Your task to perform on an android device: Go to Wikipedia Image 0: 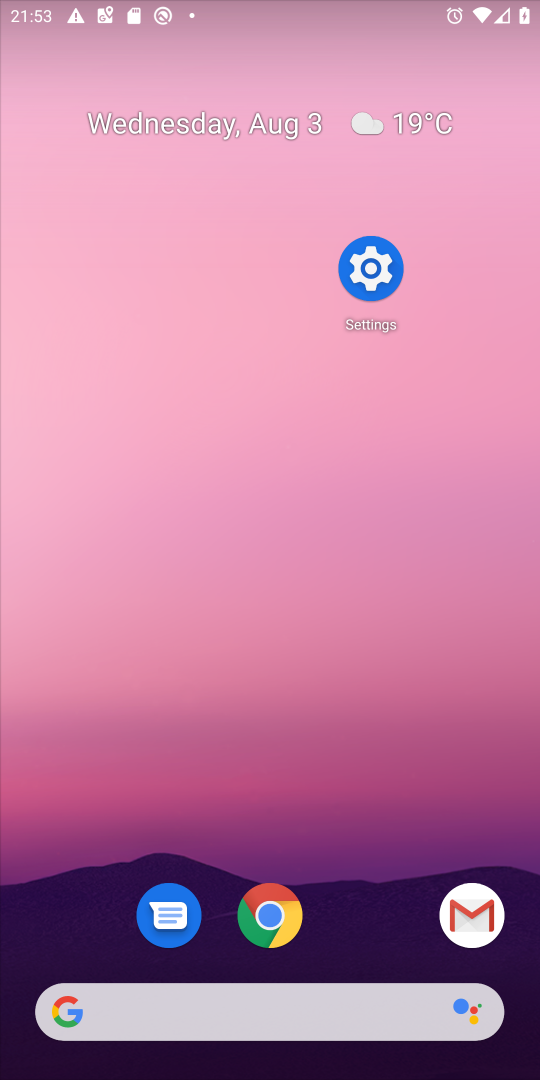
Step 0: press home button
Your task to perform on an android device: Go to Wikipedia Image 1: 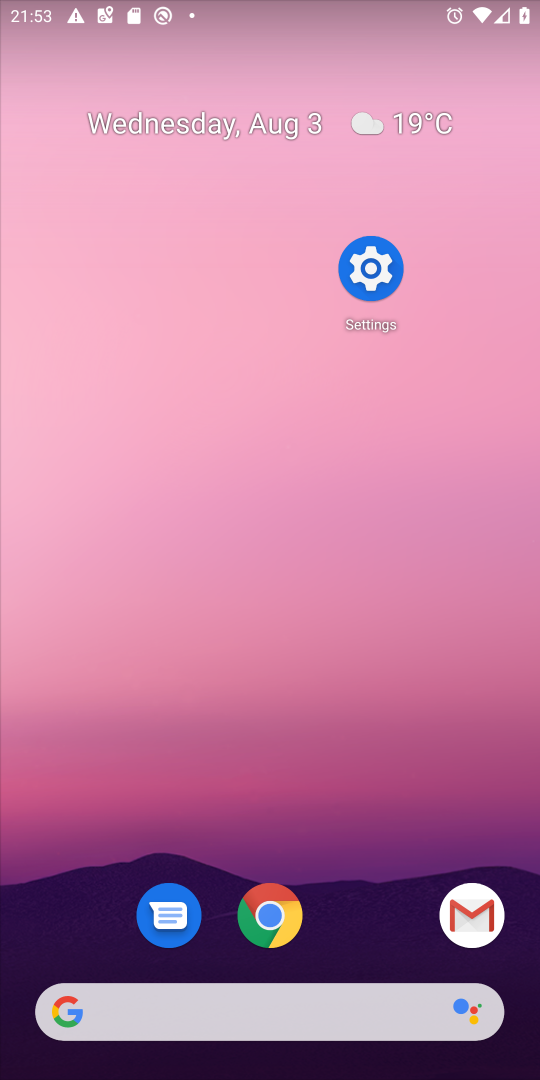
Step 1: drag from (329, 1039) to (306, 328)
Your task to perform on an android device: Go to Wikipedia Image 2: 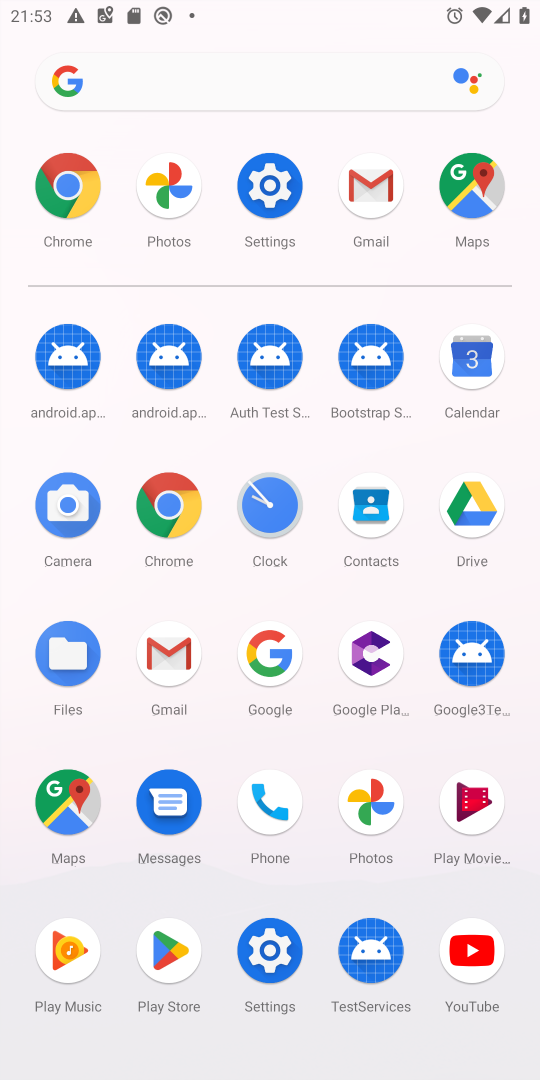
Step 2: click (92, 159)
Your task to perform on an android device: Go to Wikipedia Image 3: 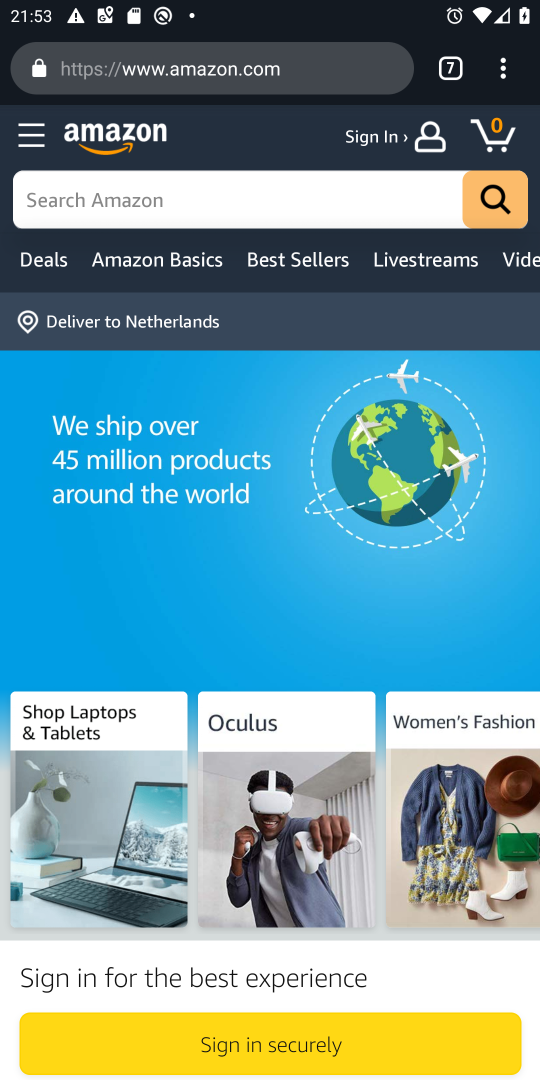
Step 3: click (453, 65)
Your task to perform on an android device: Go to Wikipedia Image 4: 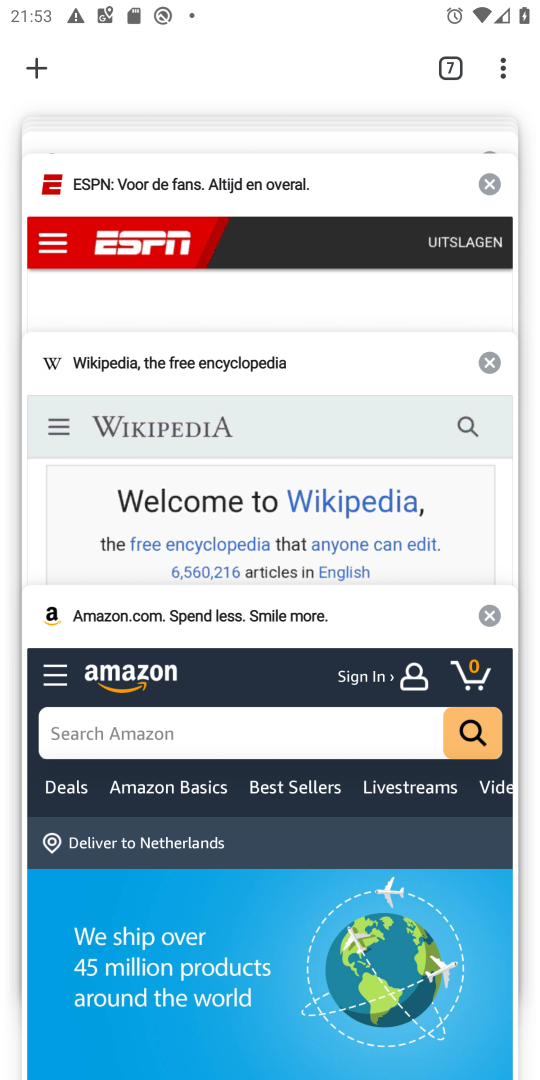
Step 4: click (35, 49)
Your task to perform on an android device: Go to Wikipedia Image 5: 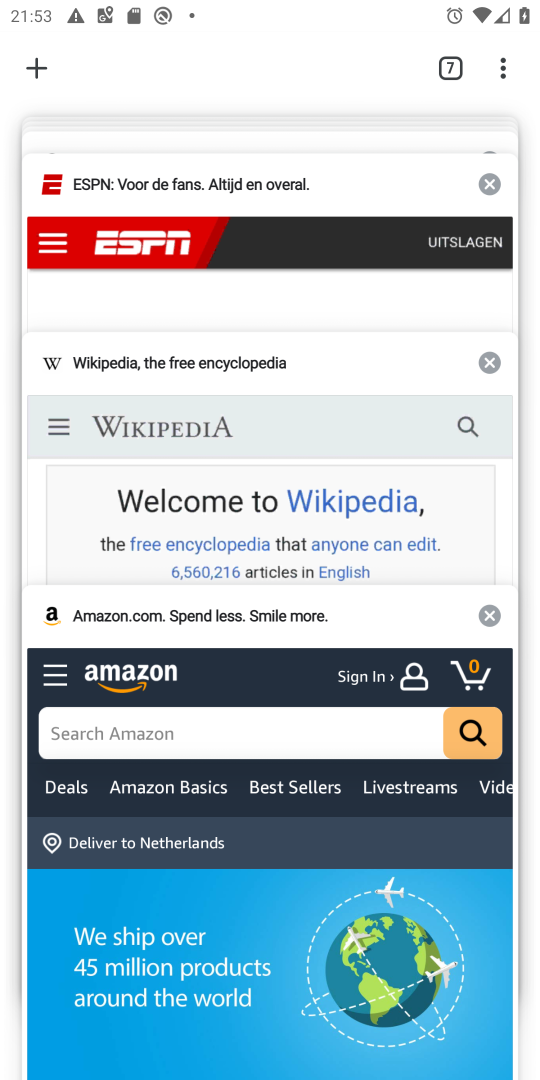
Step 5: click (31, 62)
Your task to perform on an android device: Go to Wikipedia Image 6: 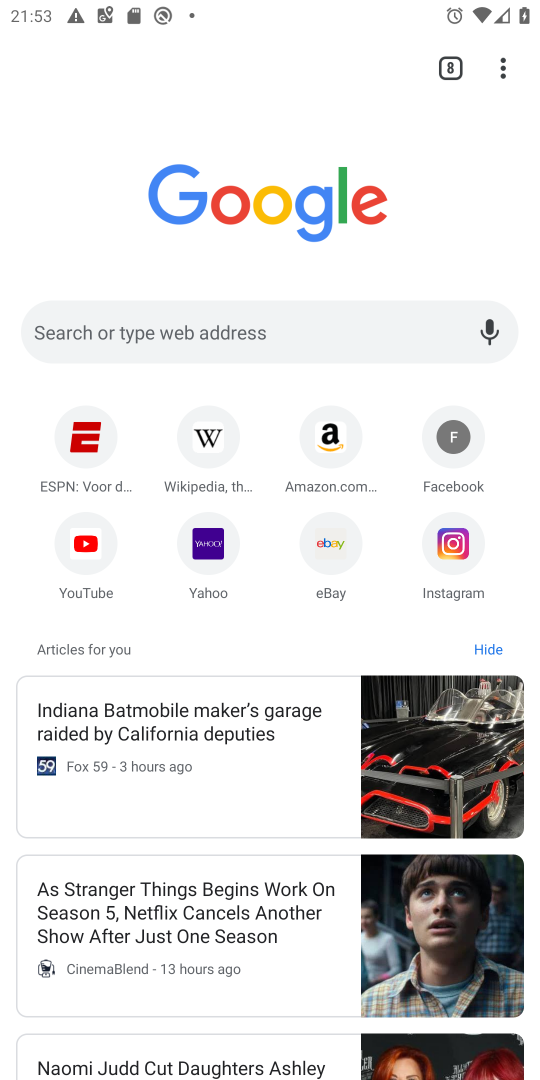
Step 6: click (221, 452)
Your task to perform on an android device: Go to Wikipedia Image 7: 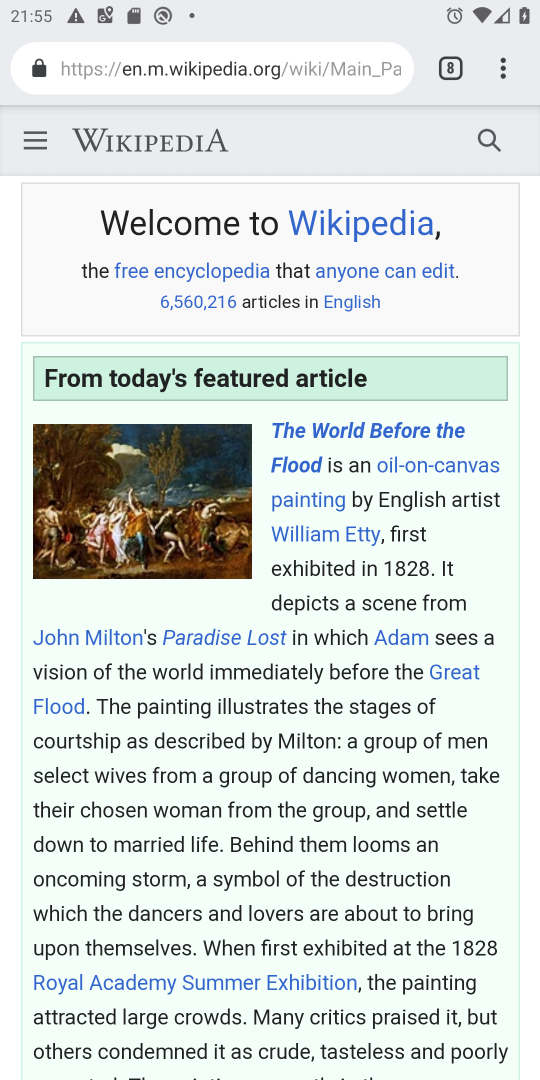
Step 7: task complete